Your task to perform on an android device: Go to notification settings Image 0: 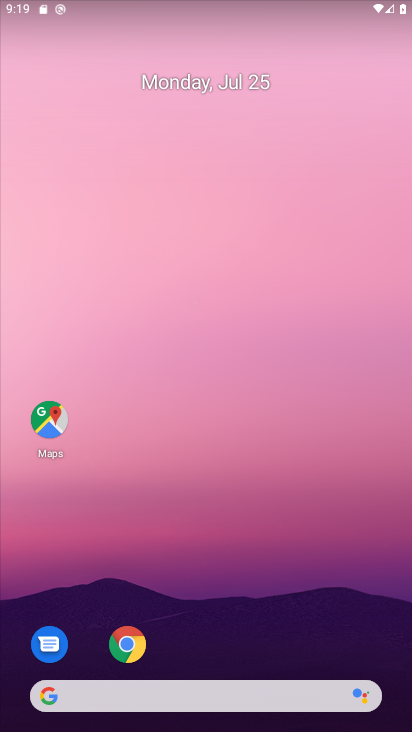
Step 0: drag from (390, 708) to (294, 30)
Your task to perform on an android device: Go to notification settings Image 1: 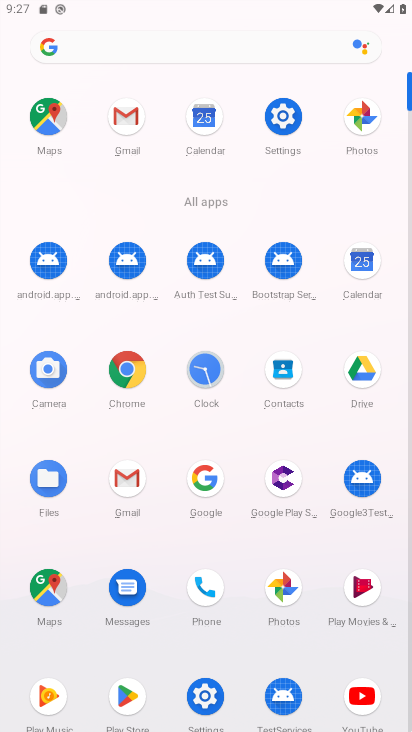
Step 1: click (206, 686)
Your task to perform on an android device: Go to notification settings Image 2: 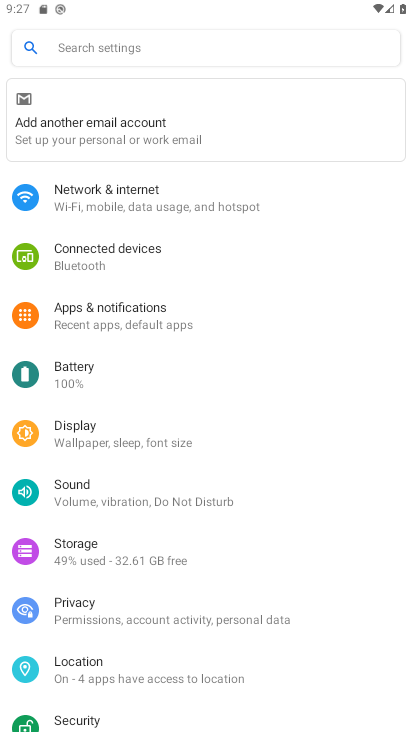
Step 2: drag from (232, 639) to (207, 178)
Your task to perform on an android device: Go to notification settings Image 3: 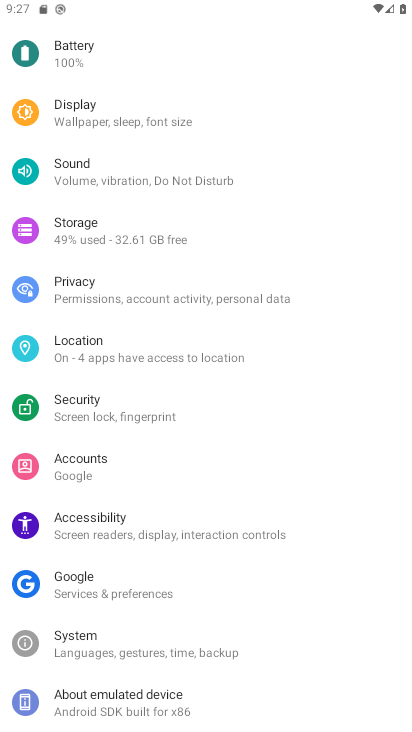
Step 3: drag from (149, 100) to (183, 435)
Your task to perform on an android device: Go to notification settings Image 4: 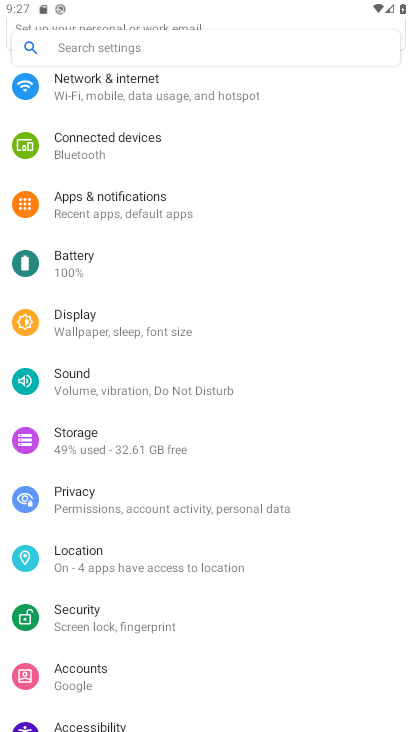
Step 4: click (114, 189)
Your task to perform on an android device: Go to notification settings Image 5: 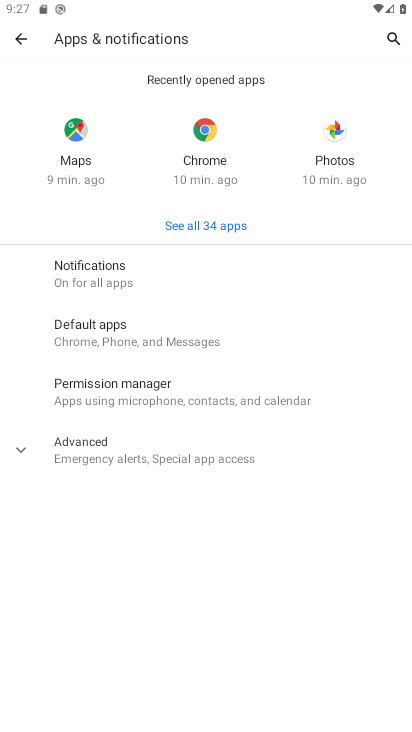
Step 5: task complete